Your task to perform on an android device: Go to privacy settings Image 0: 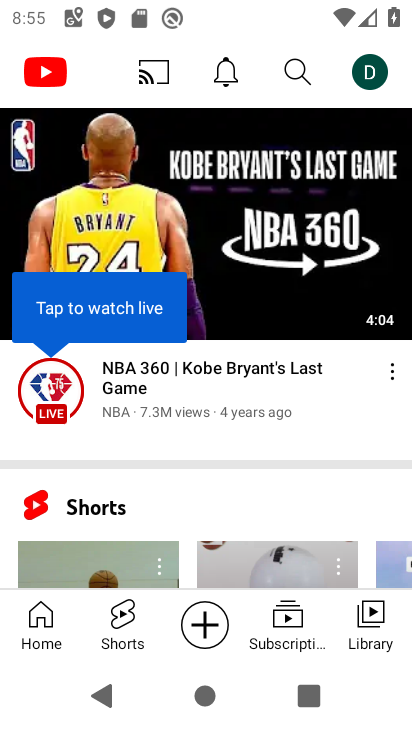
Step 0: press home button
Your task to perform on an android device: Go to privacy settings Image 1: 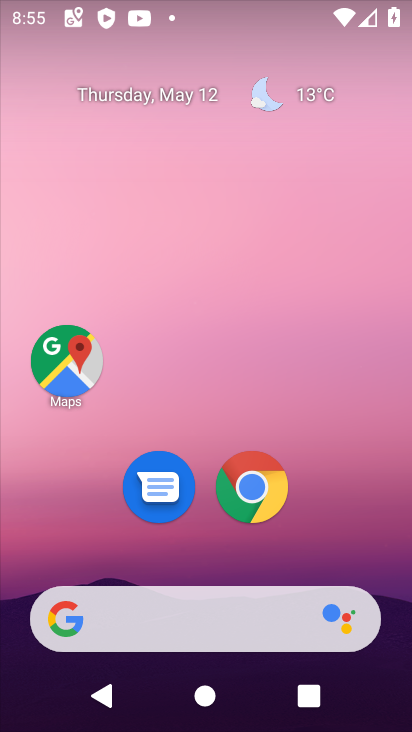
Step 1: drag from (379, 516) to (349, 28)
Your task to perform on an android device: Go to privacy settings Image 2: 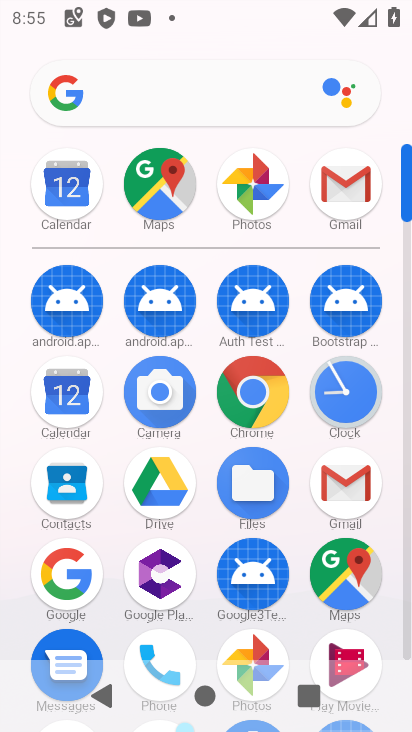
Step 2: drag from (409, 550) to (409, 516)
Your task to perform on an android device: Go to privacy settings Image 3: 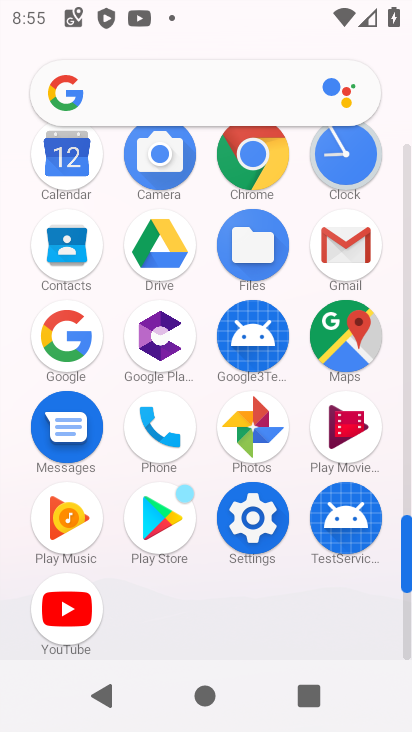
Step 3: click (249, 527)
Your task to perform on an android device: Go to privacy settings Image 4: 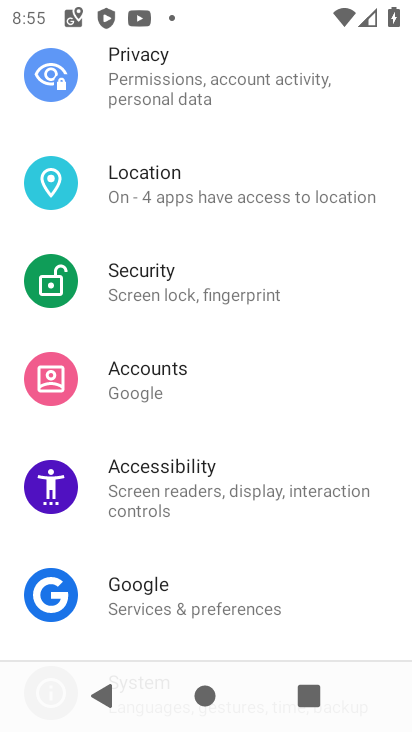
Step 4: click (150, 105)
Your task to perform on an android device: Go to privacy settings Image 5: 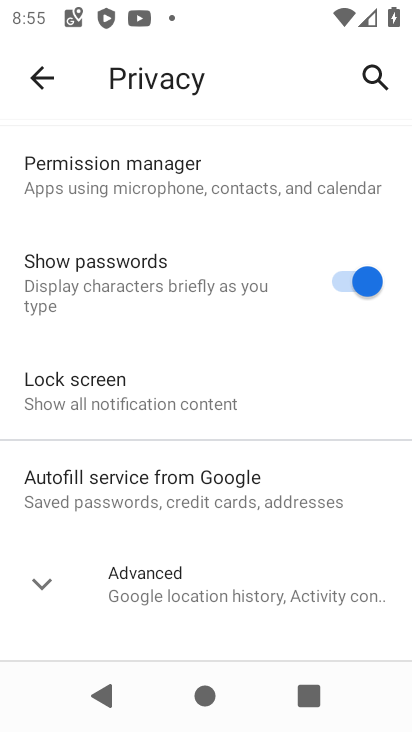
Step 5: task complete